Your task to perform on an android device: Go to display settings Image 0: 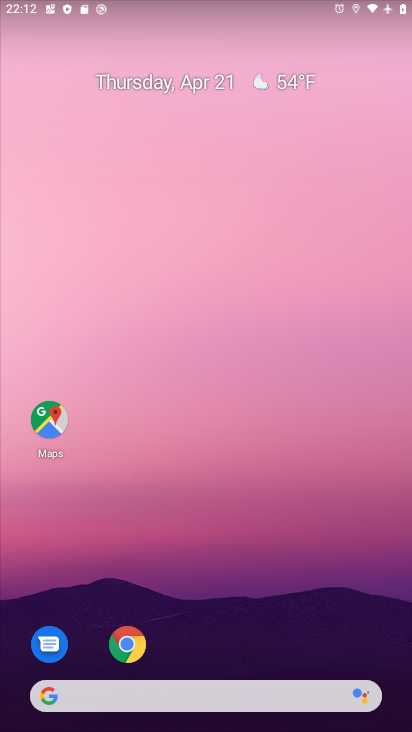
Step 0: drag from (168, 521) to (142, 39)
Your task to perform on an android device: Go to display settings Image 1: 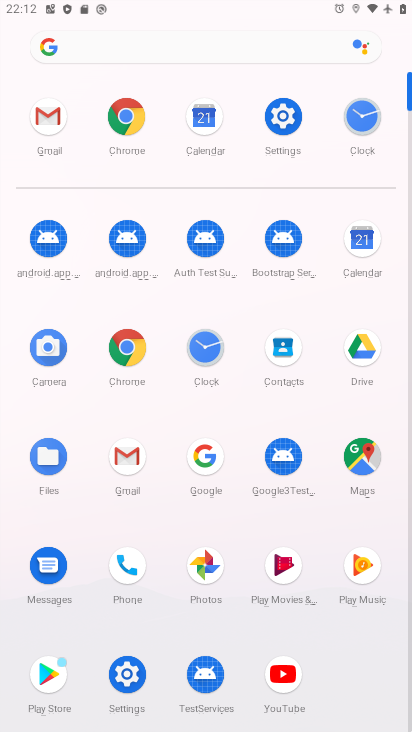
Step 1: click (292, 121)
Your task to perform on an android device: Go to display settings Image 2: 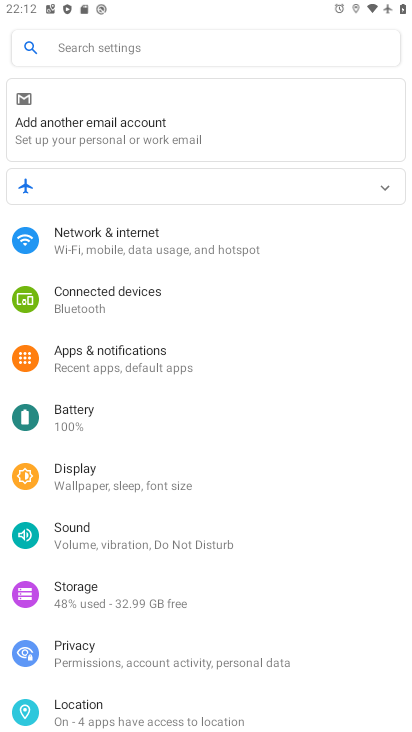
Step 2: click (80, 471)
Your task to perform on an android device: Go to display settings Image 3: 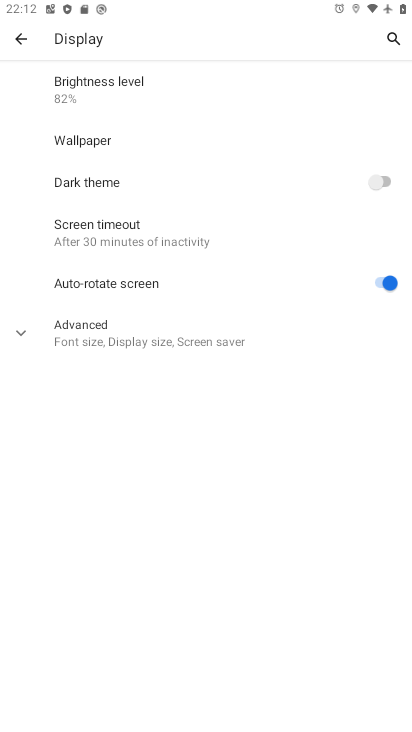
Step 3: click (132, 336)
Your task to perform on an android device: Go to display settings Image 4: 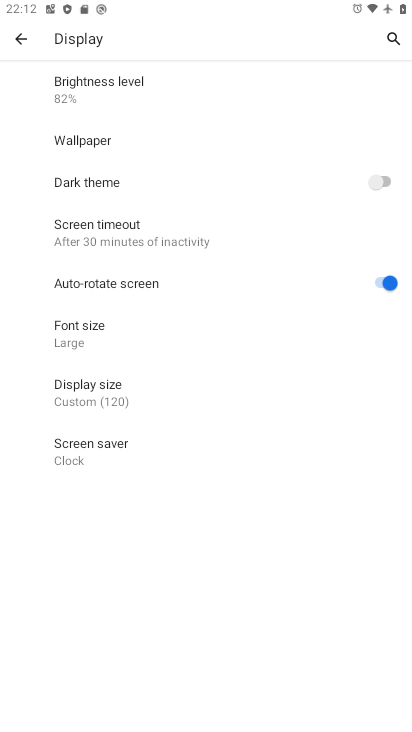
Step 4: task complete